Your task to perform on an android device: Do I have any events today? Image 0: 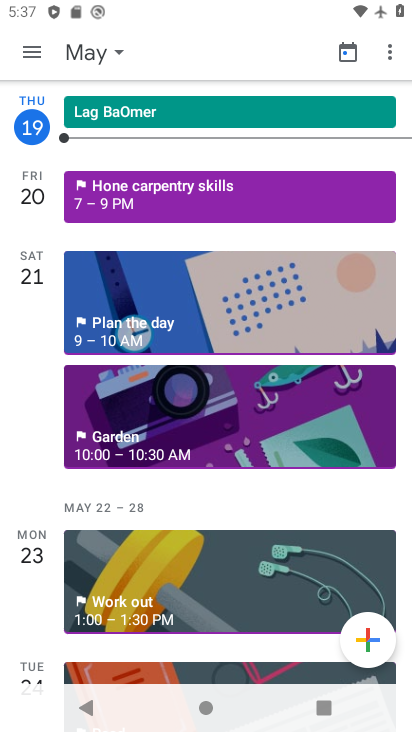
Step 0: click (102, 110)
Your task to perform on an android device: Do I have any events today? Image 1: 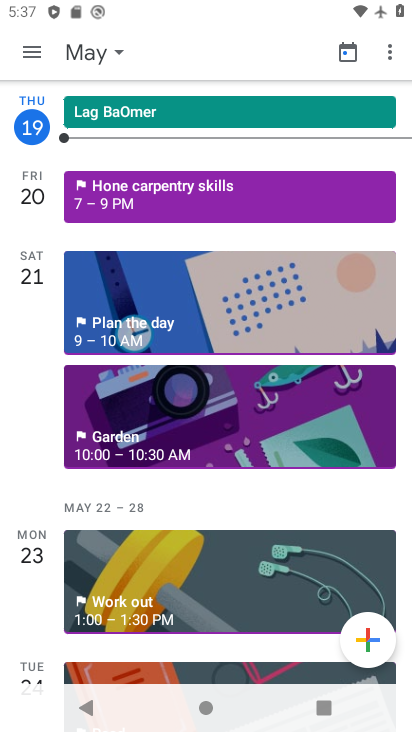
Step 1: click (102, 110)
Your task to perform on an android device: Do I have any events today? Image 2: 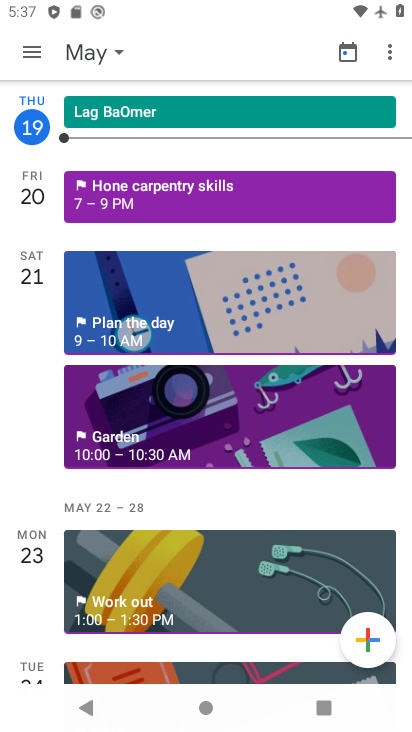
Step 2: click (106, 110)
Your task to perform on an android device: Do I have any events today? Image 3: 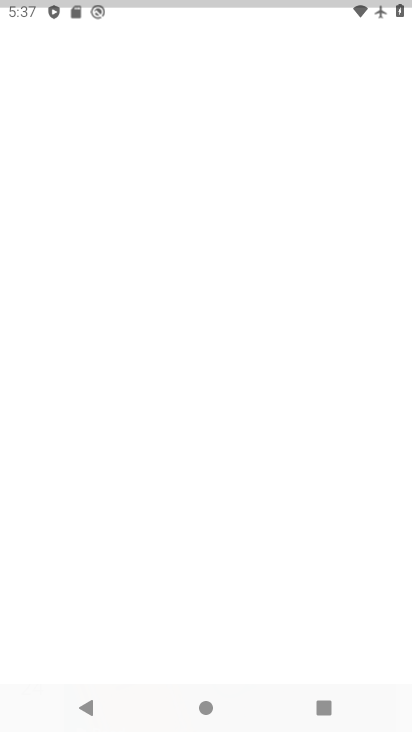
Step 3: click (106, 109)
Your task to perform on an android device: Do I have any events today? Image 4: 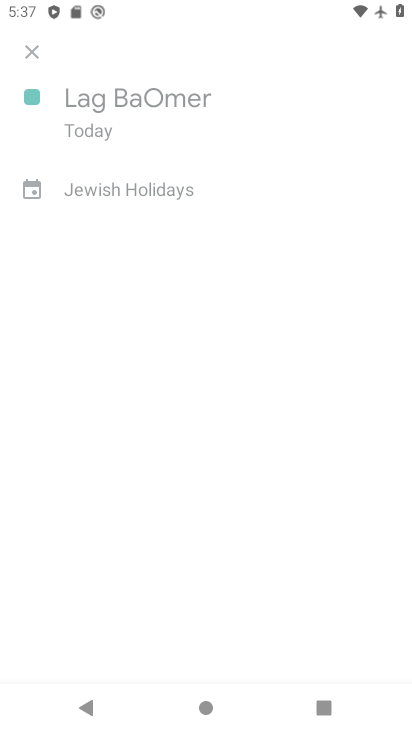
Step 4: click (107, 108)
Your task to perform on an android device: Do I have any events today? Image 5: 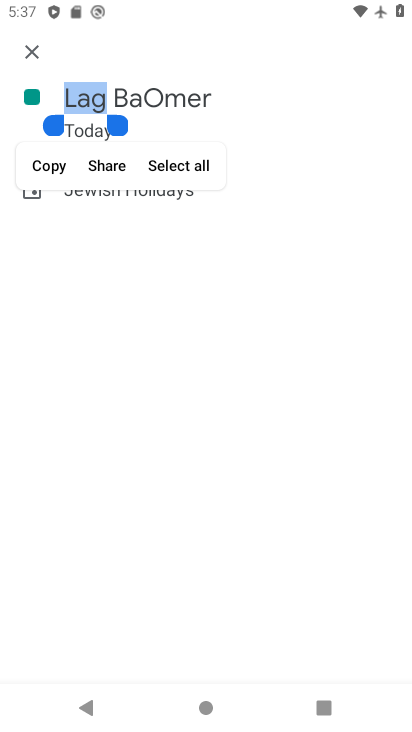
Step 5: click (38, 57)
Your task to perform on an android device: Do I have any events today? Image 6: 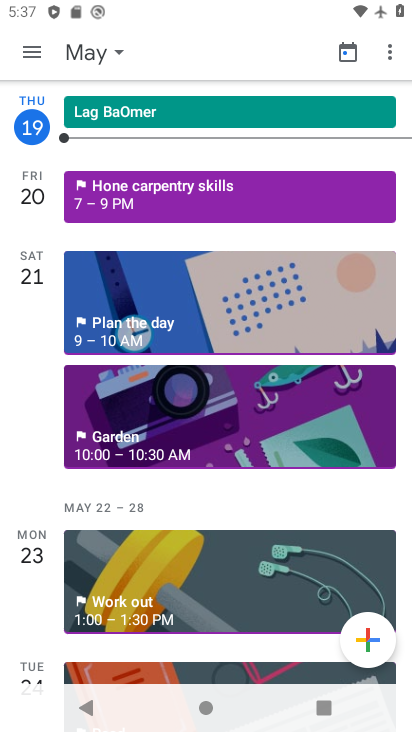
Step 6: task complete